Your task to perform on an android device: Open calendar and show me the first week of next month Image 0: 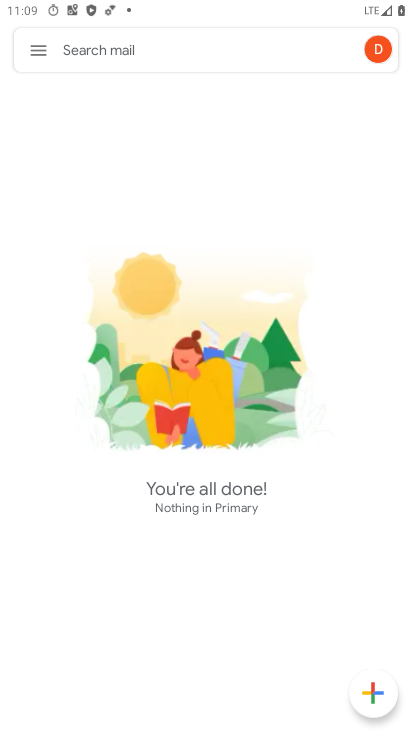
Step 0: press back button
Your task to perform on an android device: Open calendar and show me the first week of next month Image 1: 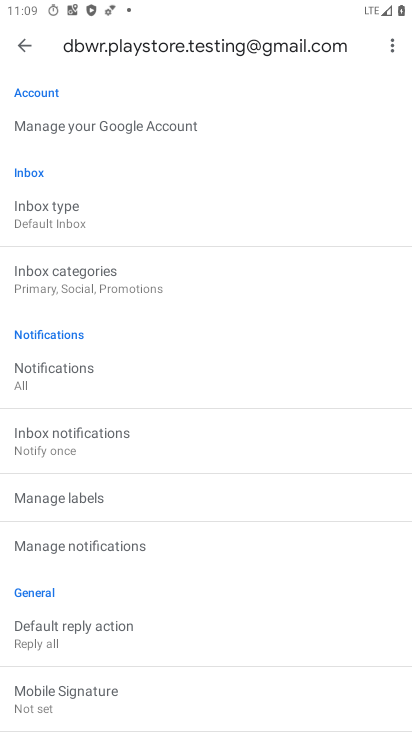
Step 1: press back button
Your task to perform on an android device: Open calendar and show me the first week of next month Image 2: 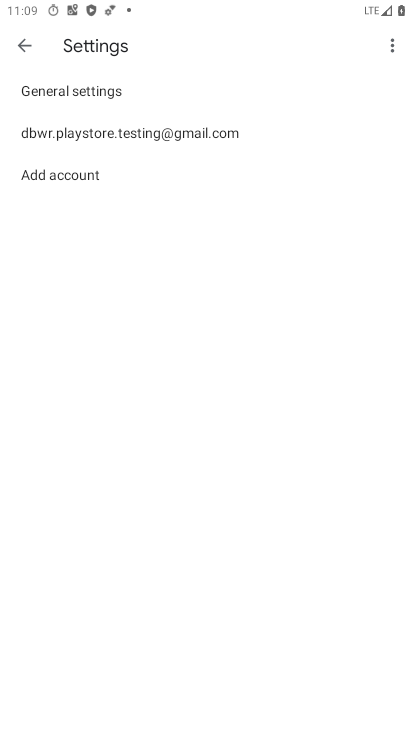
Step 2: press home button
Your task to perform on an android device: Open calendar and show me the first week of next month Image 3: 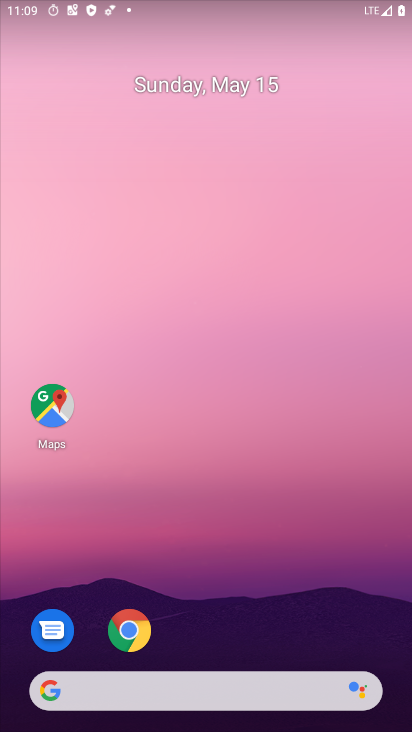
Step 3: drag from (192, 638) to (285, 64)
Your task to perform on an android device: Open calendar and show me the first week of next month Image 4: 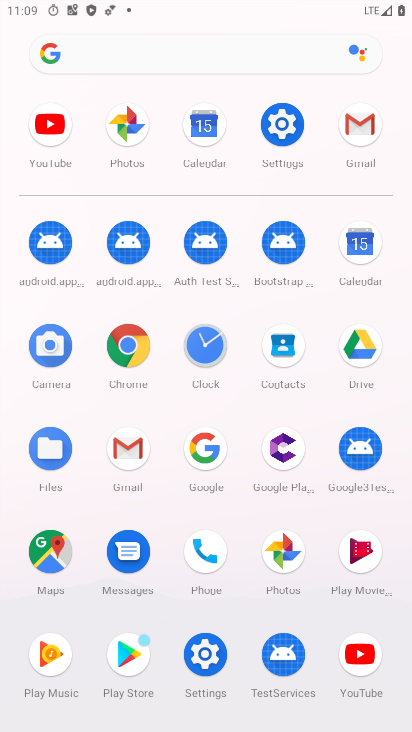
Step 4: click (354, 245)
Your task to perform on an android device: Open calendar and show me the first week of next month Image 5: 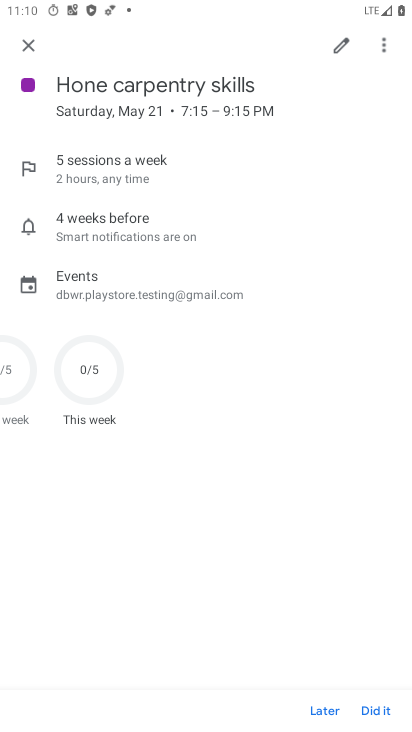
Step 5: click (31, 41)
Your task to perform on an android device: Open calendar and show me the first week of next month Image 6: 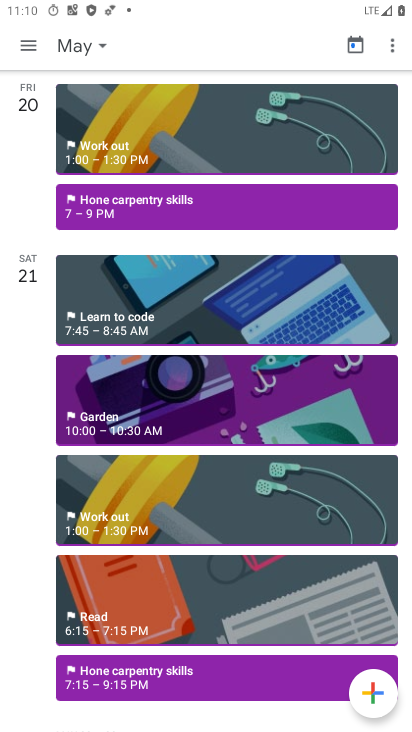
Step 6: click (75, 42)
Your task to perform on an android device: Open calendar and show me the first week of next month Image 7: 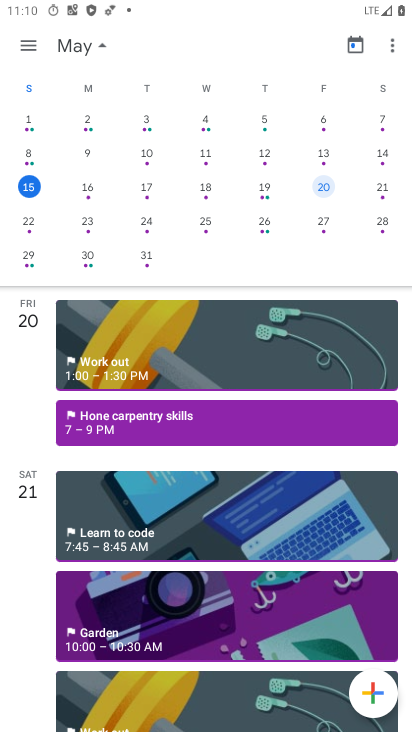
Step 7: drag from (322, 182) to (18, 154)
Your task to perform on an android device: Open calendar and show me the first week of next month Image 8: 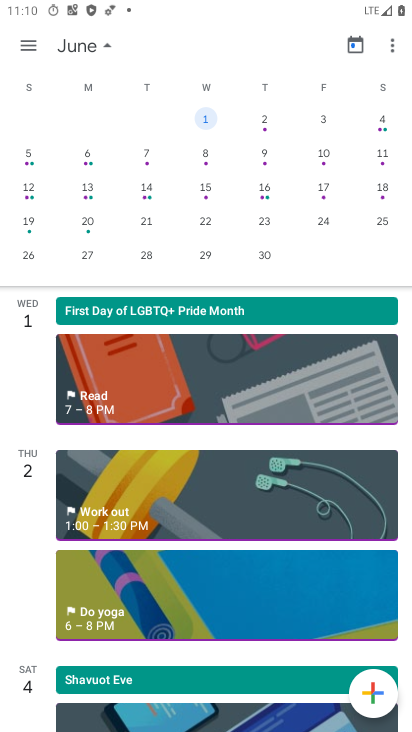
Step 8: click (204, 119)
Your task to perform on an android device: Open calendar and show me the first week of next month Image 9: 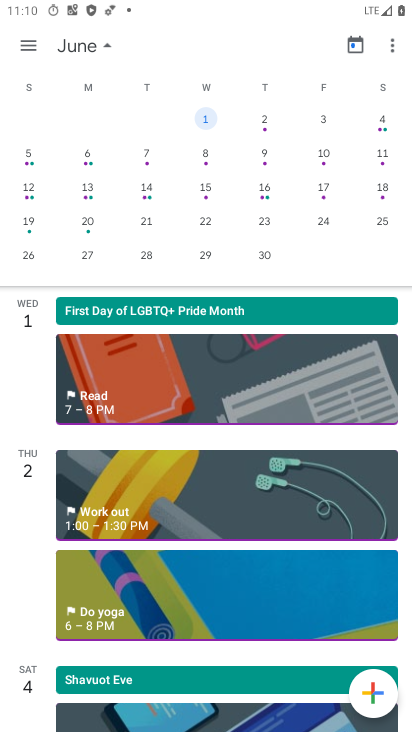
Step 9: task complete